Your task to perform on an android device: read, delete, or share a saved page in the chrome app Image 0: 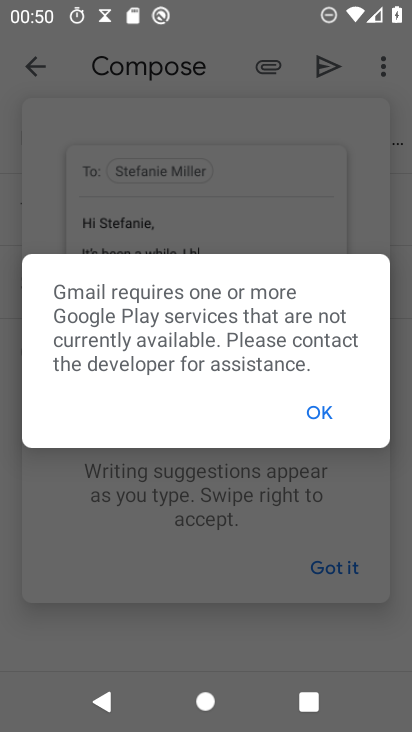
Step 0: press home button
Your task to perform on an android device: read, delete, or share a saved page in the chrome app Image 1: 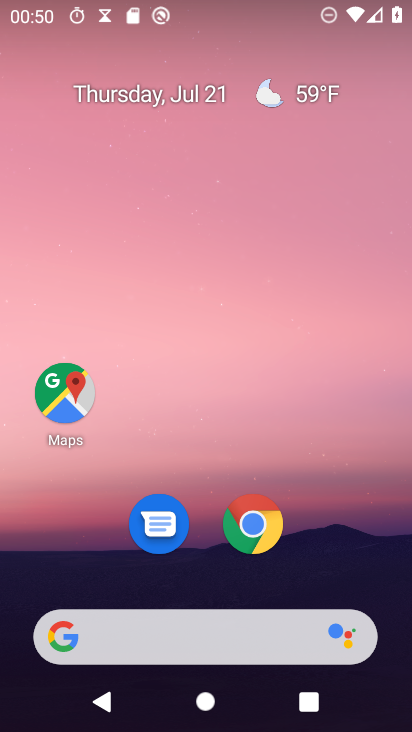
Step 1: click (254, 519)
Your task to perform on an android device: read, delete, or share a saved page in the chrome app Image 2: 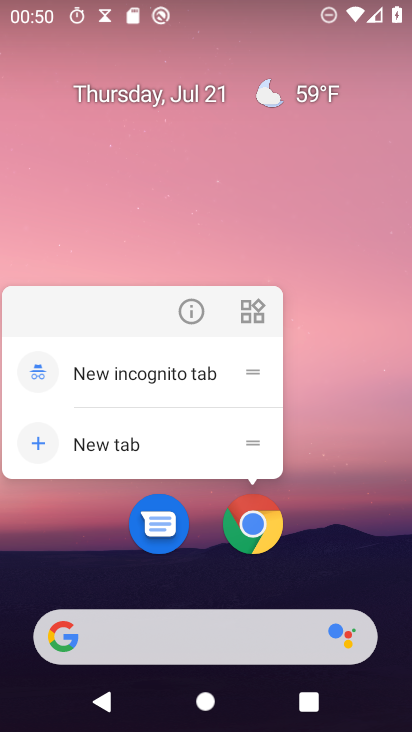
Step 2: click (239, 503)
Your task to perform on an android device: read, delete, or share a saved page in the chrome app Image 3: 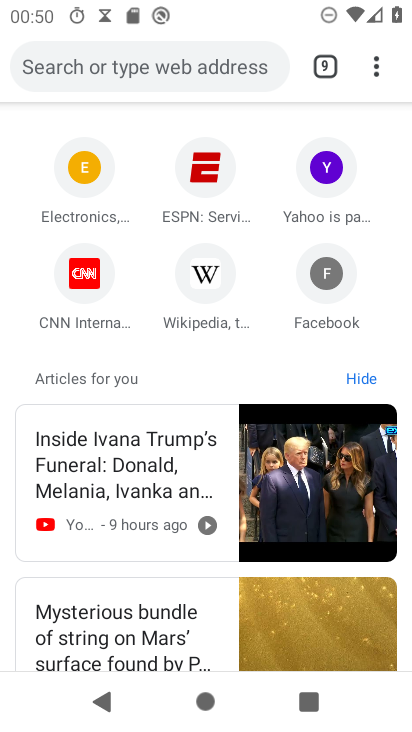
Step 3: drag from (379, 65) to (177, 432)
Your task to perform on an android device: read, delete, or share a saved page in the chrome app Image 4: 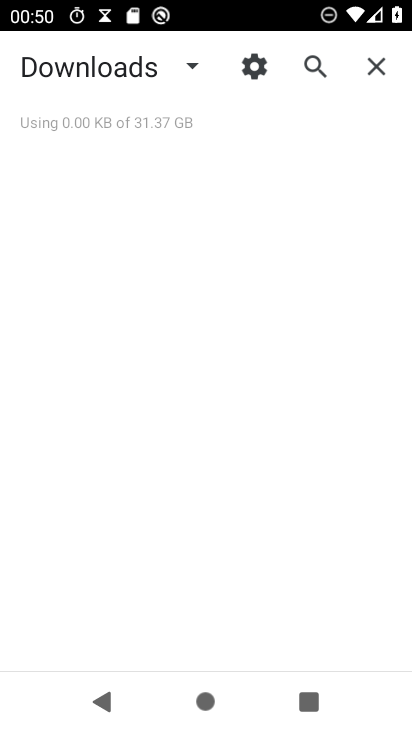
Step 4: click (169, 73)
Your task to perform on an android device: read, delete, or share a saved page in the chrome app Image 5: 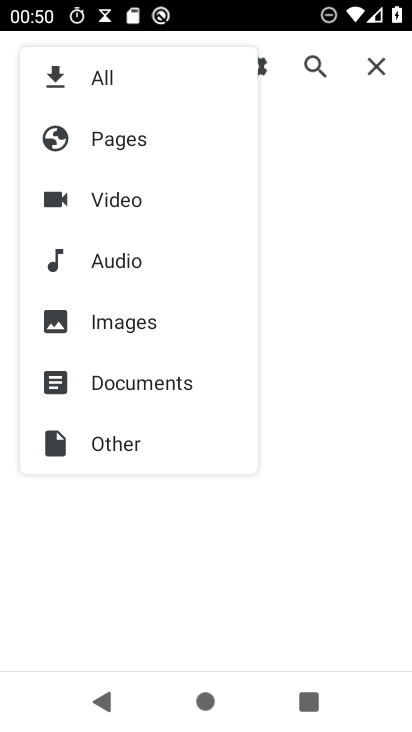
Step 5: click (134, 135)
Your task to perform on an android device: read, delete, or share a saved page in the chrome app Image 6: 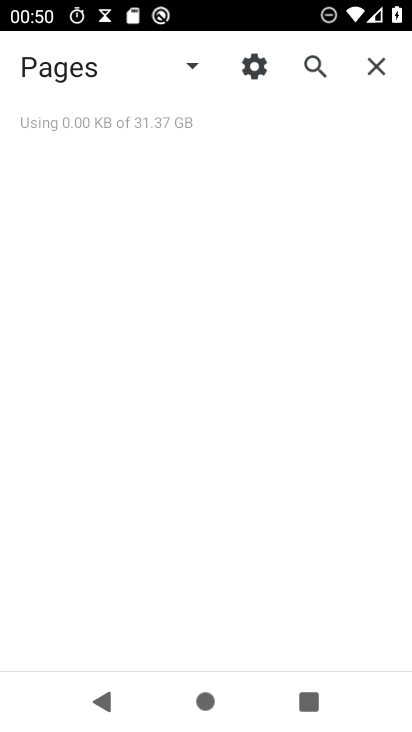
Step 6: task complete